Your task to perform on an android device: open sync settings in chrome Image 0: 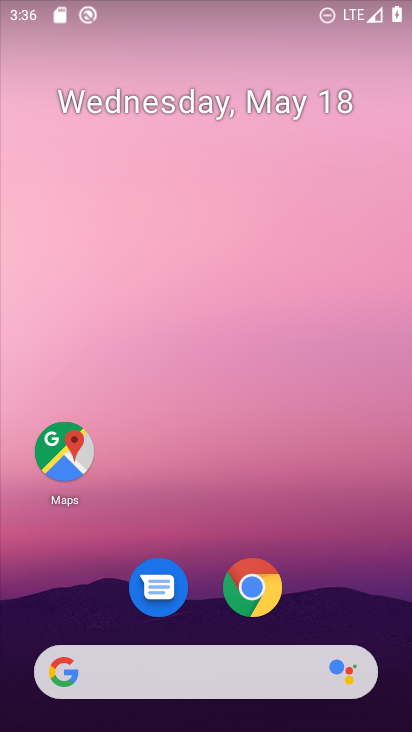
Step 0: click (248, 594)
Your task to perform on an android device: open sync settings in chrome Image 1: 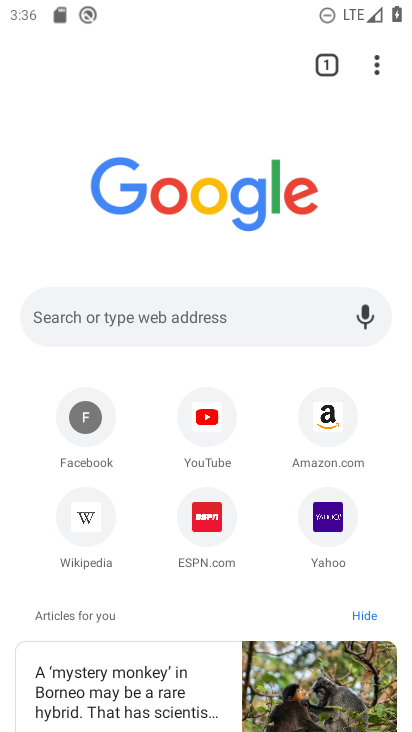
Step 1: drag from (377, 54) to (168, 544)
Your task to perform on an android device: open sync settings in chrome Image 2: 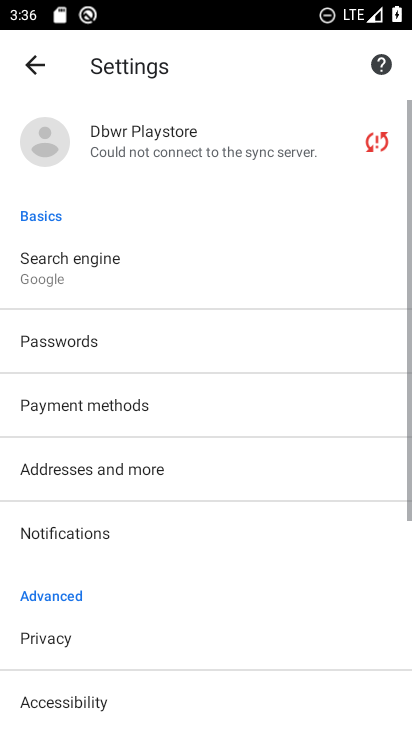
Step 2: click (170, 157)
Your task to perform on an android device: open sync settings in chrome Image 3: 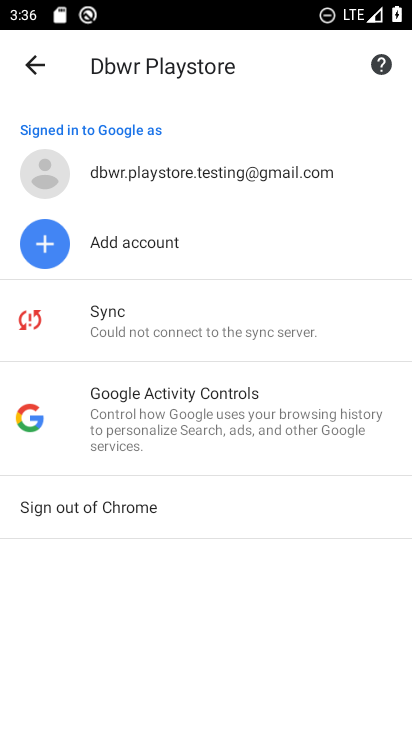
Step 3: click (234, 160)
Your task to perform on an android device: open sync settings in chrome Image 4: 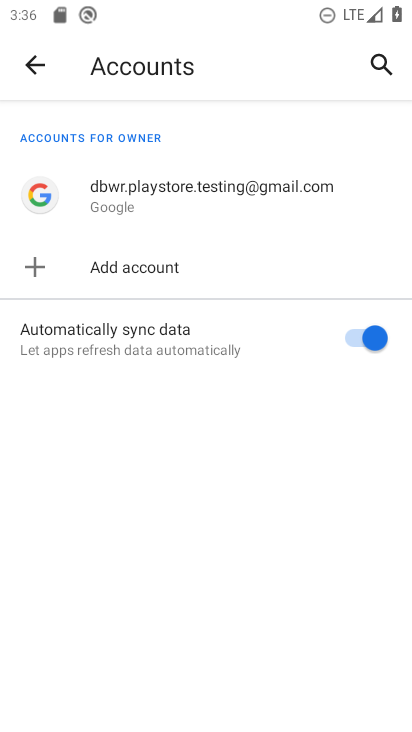
Step 4: task complete